Your task to perform on an android device: see sites visited before in the chrome app Image 0: 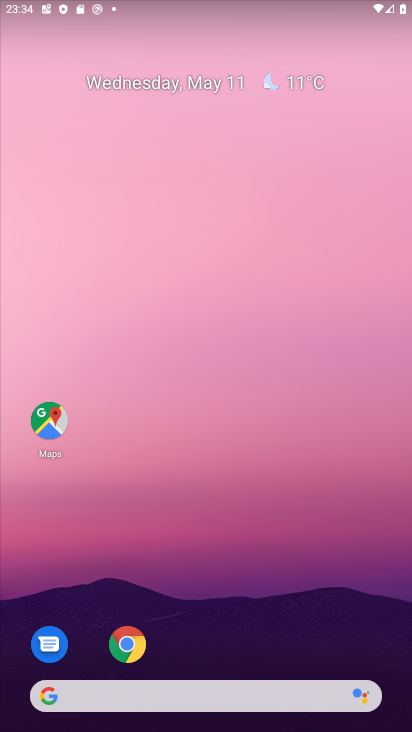
Step 0: click (124, 640)
Your task to perform on an android device: see sites visited before in the chrome app Image 1: 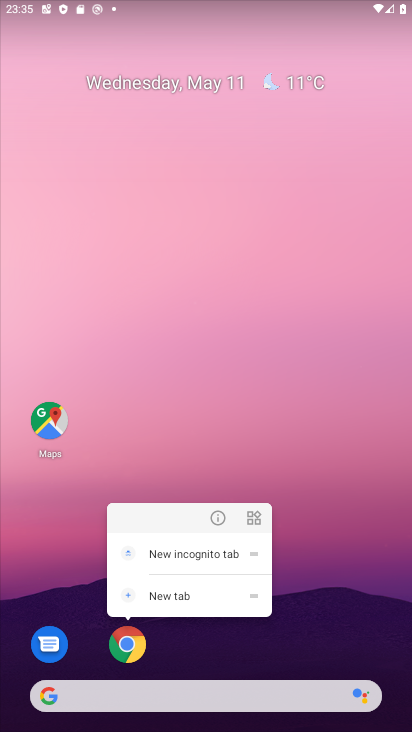
Step 1: click (277, 647)
Your task to perform on an android device: see sites visited before in the chrome app Image 2: 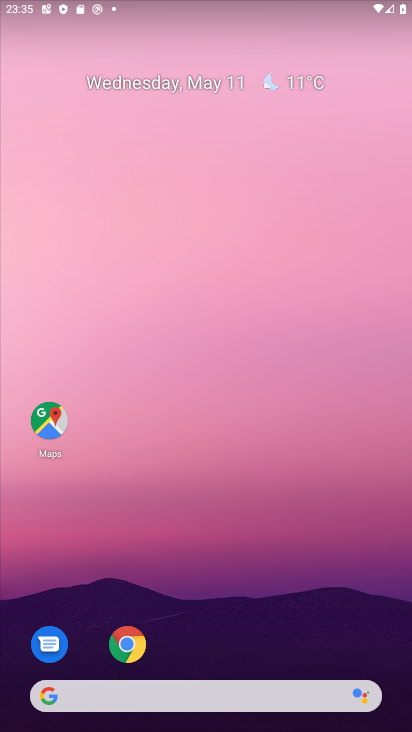
Step 2: click (125, 639)
Your task to perform on an android device: see sites visited before in the chrome app Image 3: 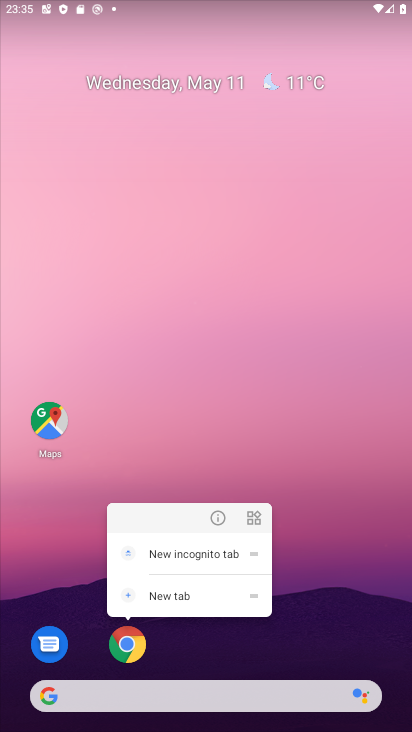
Step 3: click (125, 641)
Your task to perform on an android device: see sites visited before in the chrome app Image 4: 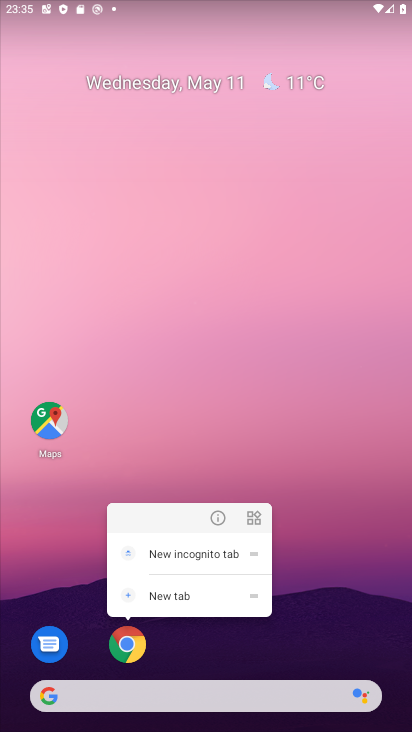
Step 4: click (128, 641)
Your task to perform on an android device: see sites visited before in the chrome app Image 5: 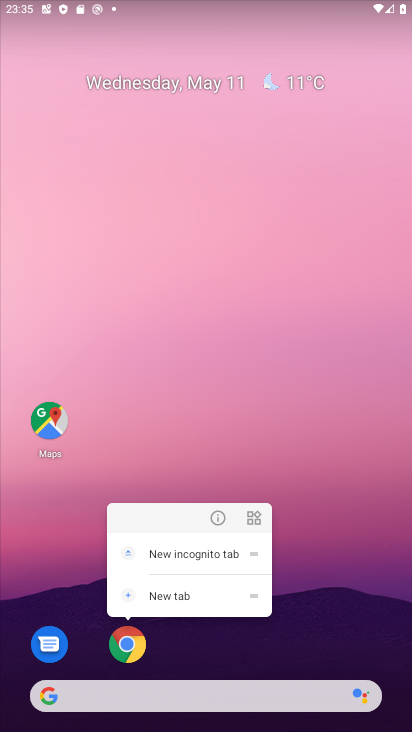
Step 5: click (200, 638)
Your task to perform on an android device: see sites visited before in the chrome app Image 6: 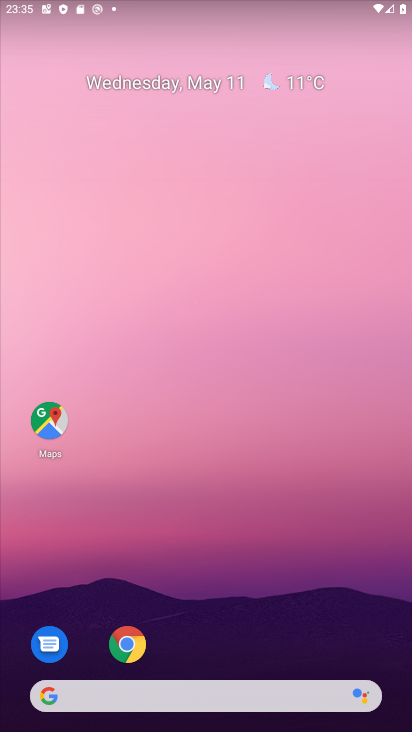
Step 6: click (125, 641)
Your task to perform on an android device: see sites visited before in the chrome app Image 7: 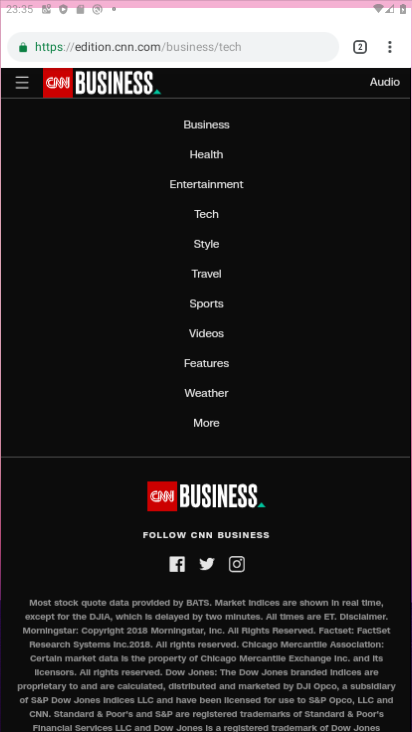
Step 7: drag from (234, 648) to (241, 63)
Your task to perform on an android device: see sites visited before in the chrome app Image 8: 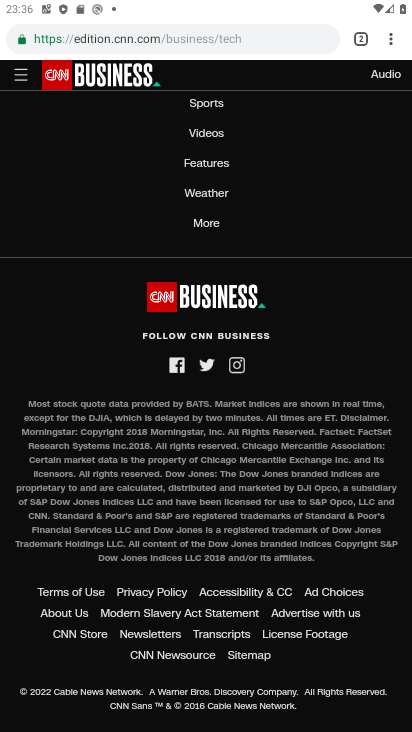
Step 8: click (390, 36)
Your task to perform on an android device: see sites visited before in the chrome app Image 9: 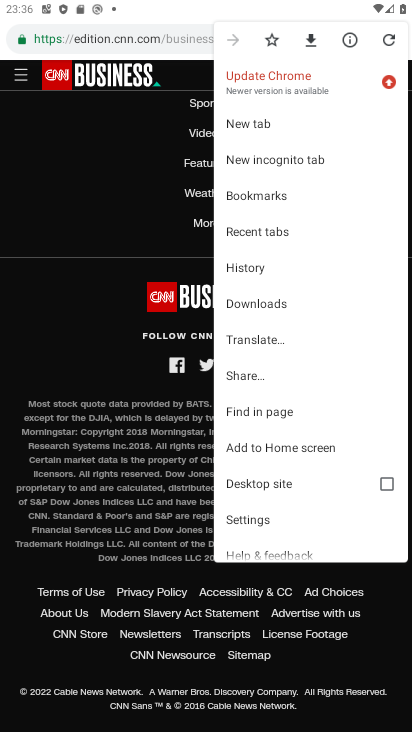
Step 9: click (274, 262)
Your task to perform on an android device: see sites visited before in the chrome app Image 10: 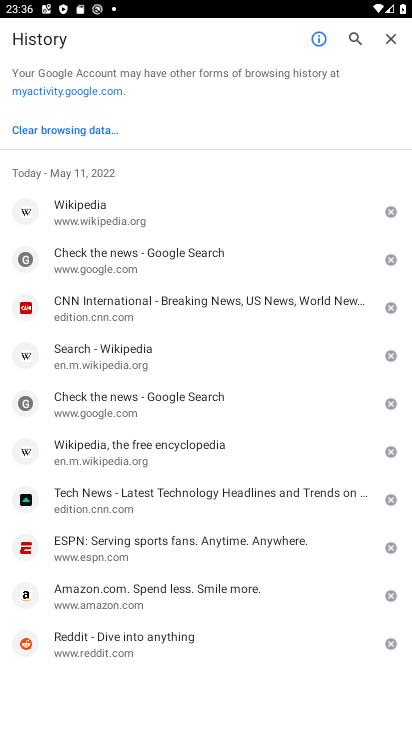
Step 10: task complete